Your task to perform on an android device: Go to Maps Image 0: 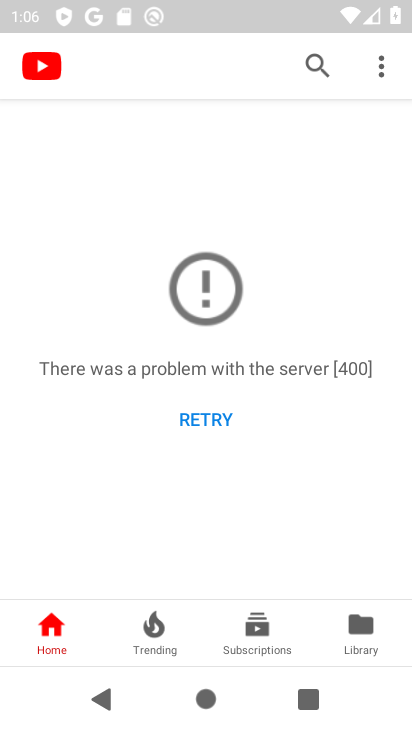
Step 0: press home button
Your task to perform on an android device: Go to Maps Image 1: 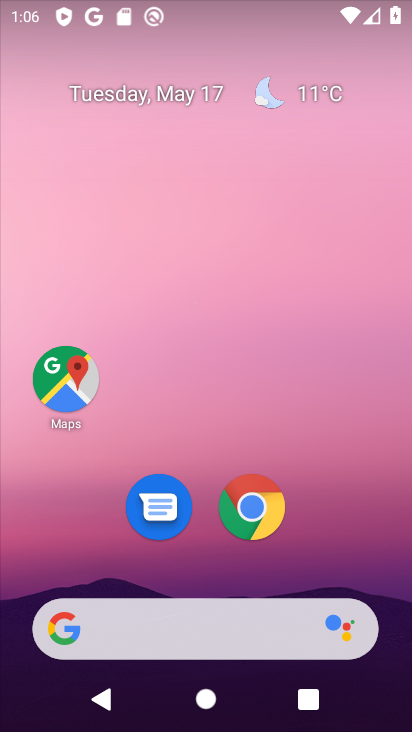
Step 1: click (71, 379)
Your task to perform on an android device: Go to Maps Image 2: 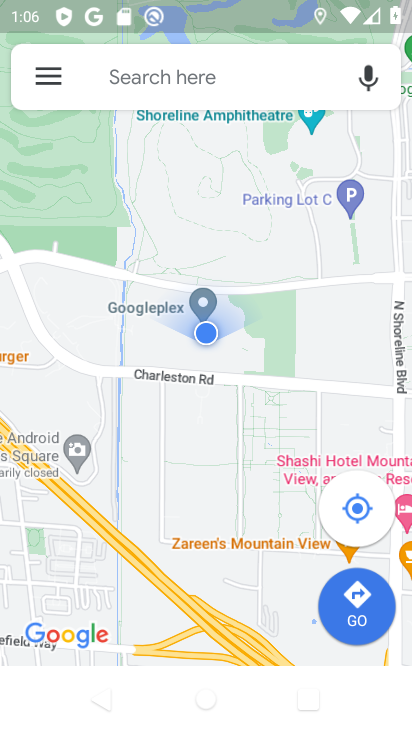
Step 2: task complete